Your task to perform on an android device: Show me recent news Image 0: 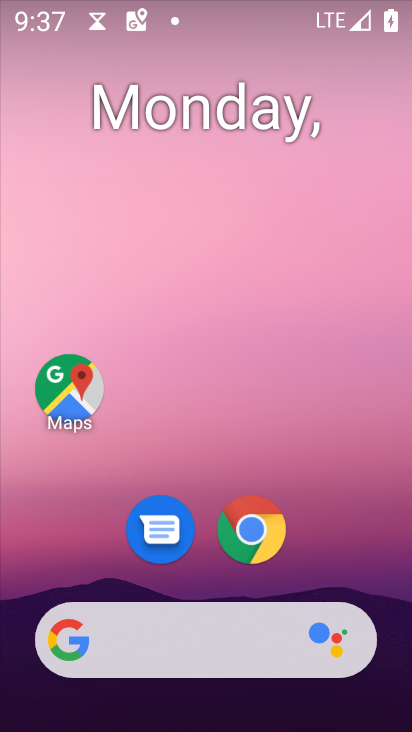
Step 0: drag from (285, 715) to (264, 170)
Your task to perform on an android device: Show me recent news Image 1: 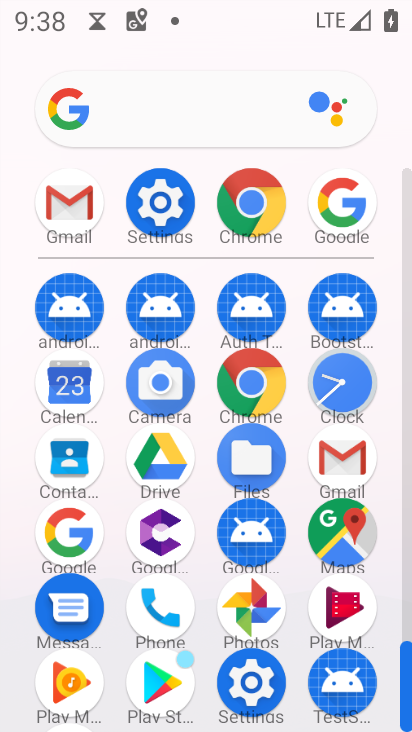
Step 1: press back button
Your task to perform on an android device: Show me recent news Image 2: 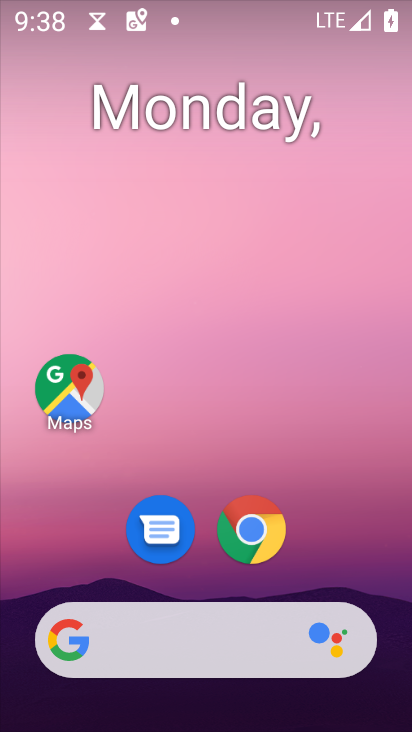
Step 2: drag from (15, 235) to (376, 398)
Your task to perform on an android device: Show me recent news Image 3: 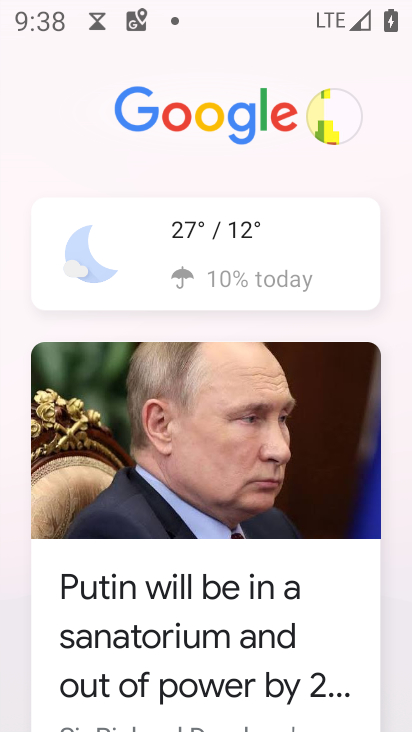
Step 3: drag from (153, 639) to (162, 349)
Your task to perform on an android device: Show me recent news Image 4: 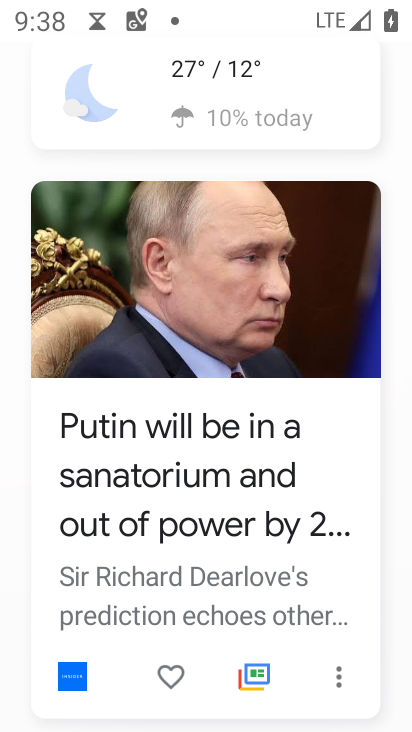
Step 4: drag from (195, 378) to (186, 119)
Your task to perform on an android device: Show me recent news Image 5: 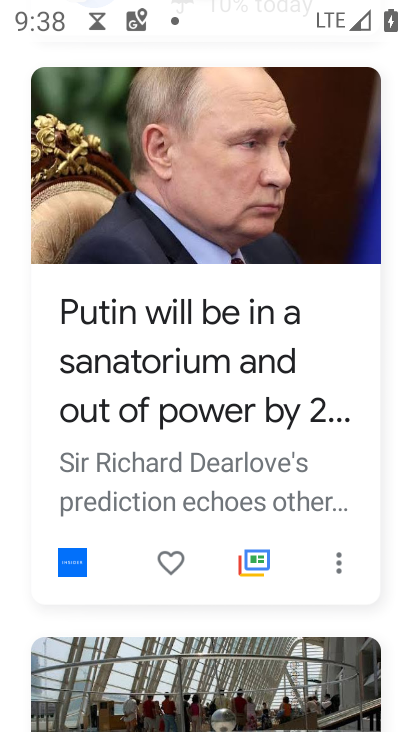
Step 5: drag from (154, 411) to (145, 197)
Your task to perform on an android device: Show me recent news Image 6: 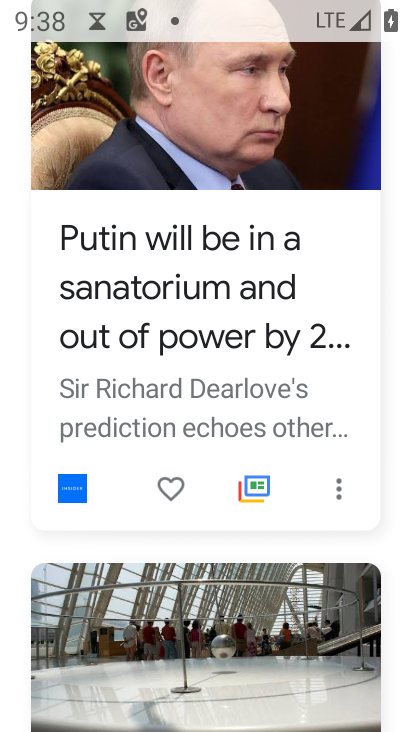
Step 6: drag from (161, 405) to (157, 207)
Your task to perform on an android device: Show me recent news Image 7: 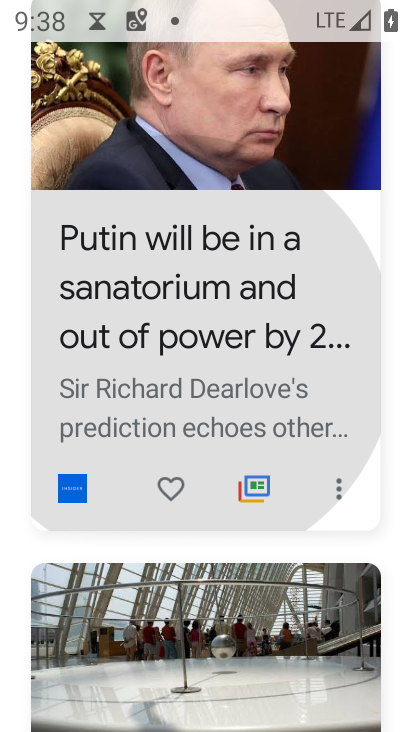
Step 7: drag from (166, 388) to (172, 202)
Your task to perform on an android device: Show me recent news Image 8: 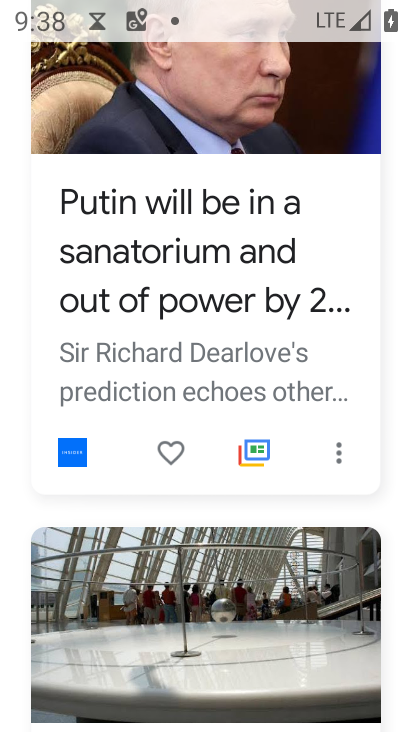
Step 8: drag from (174, 440) to (226, 228)
Your task to perform on an android device: Show me recent news Image 9: 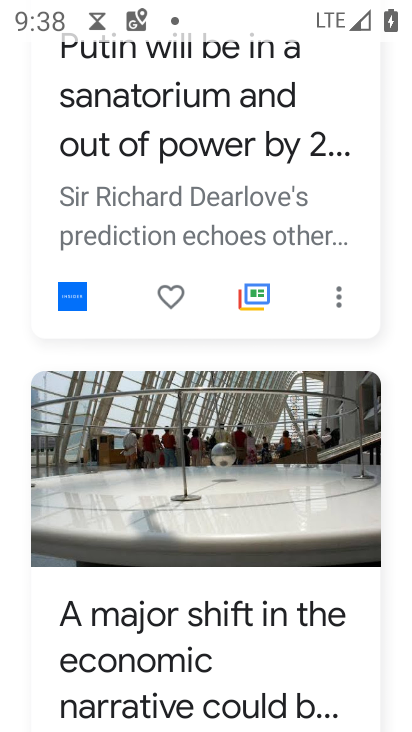
Step 9: click (202, 315)
Your task to perform on an android device: Show me recent news Image 10: 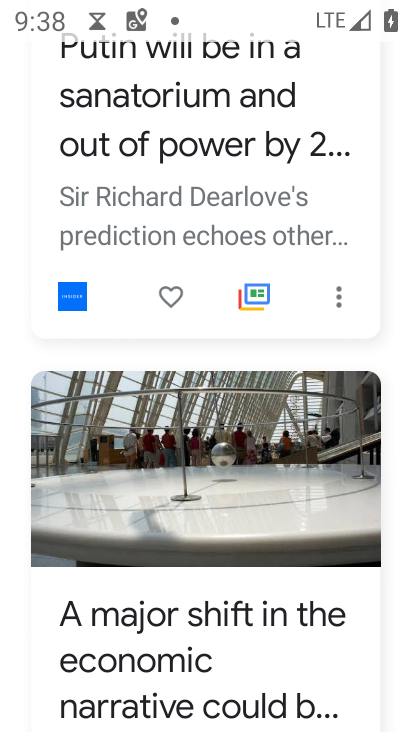
Step 10: task complete